Your task to perform on an android device: open app "Move to iOS" Image 0: 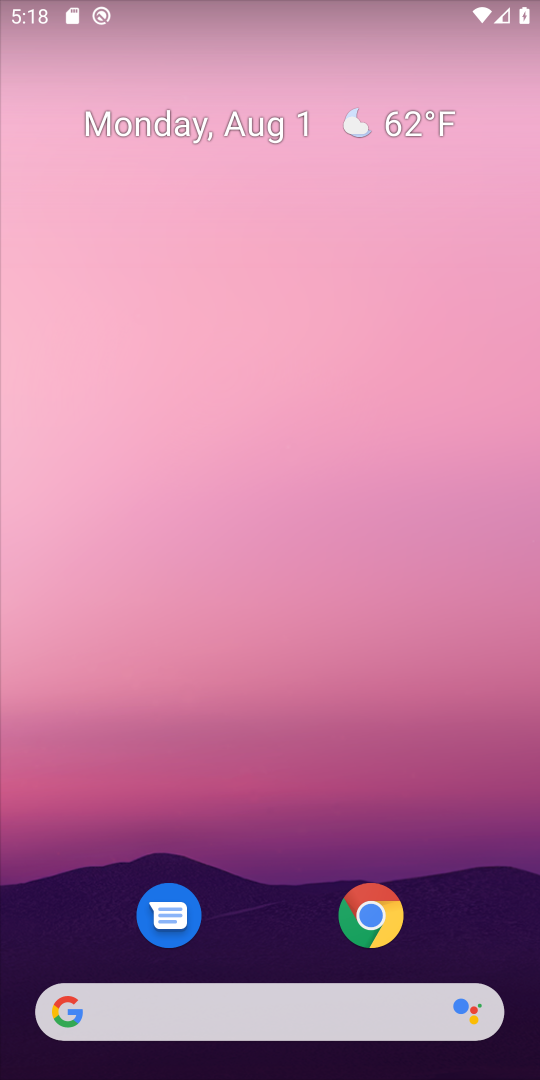
Step 0: drag from (252, 818) to (180, 270)
Your task to perform on an android device: open app "Move to iOS" Image 1: 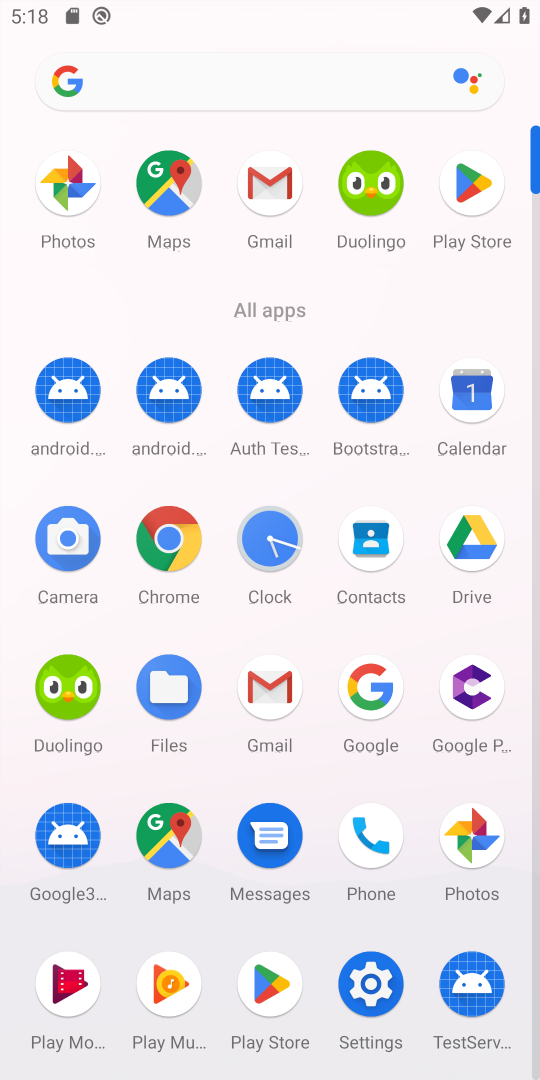
Step 1: click (465, 182)
Your task to perform on an android device: open app "Move to iOS" Image 2: 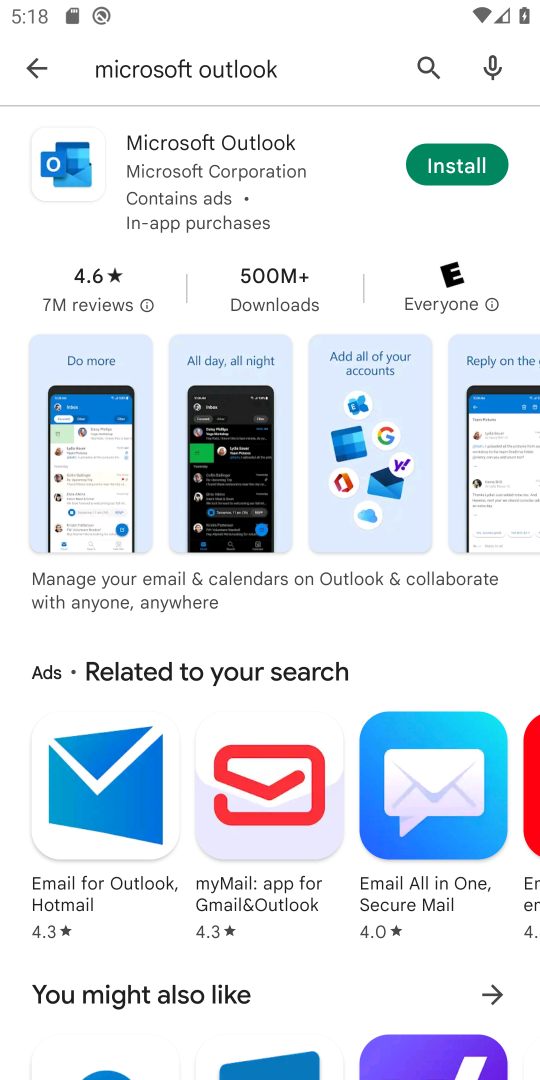
Step 2: click (424, 70)
Your task to perform on an android device: open app "Move to iOS" Image 3: 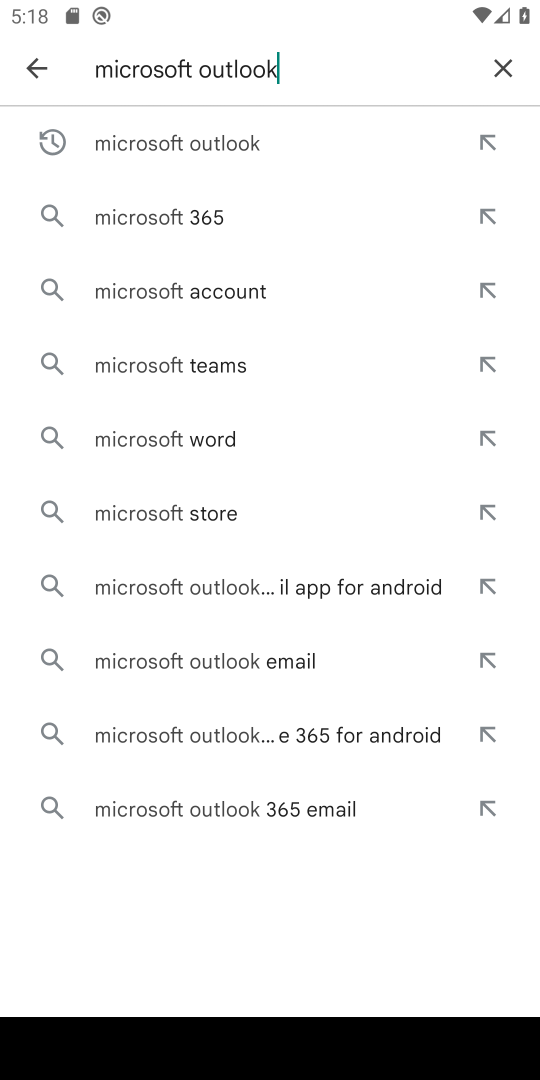
Step 3: click (498, 60)
Your task to perform on an android device: open app "Move to iOS" Image 4: 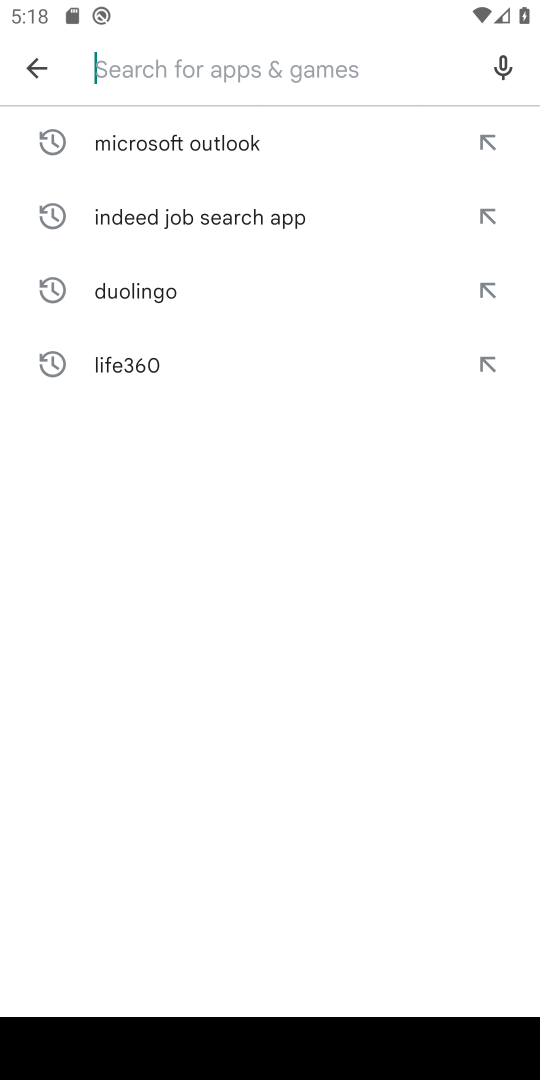
Step 4: click (357, 75)
Your task to perform on an android device: open app "Move to iOS" Image 5: 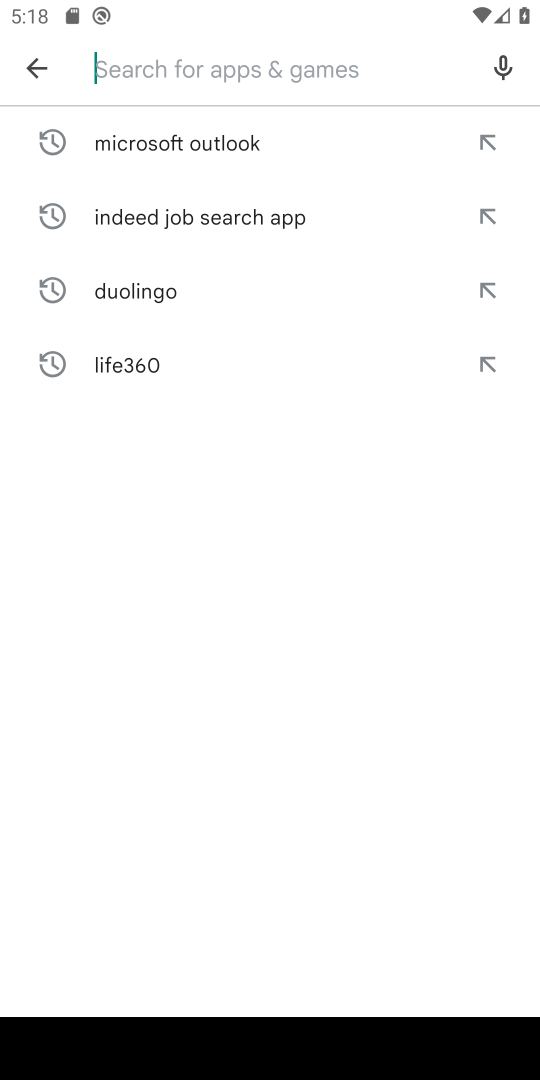
Step 5: type "ios"
Your task to perform on an android device: open app "Move to iOS" Image 6: 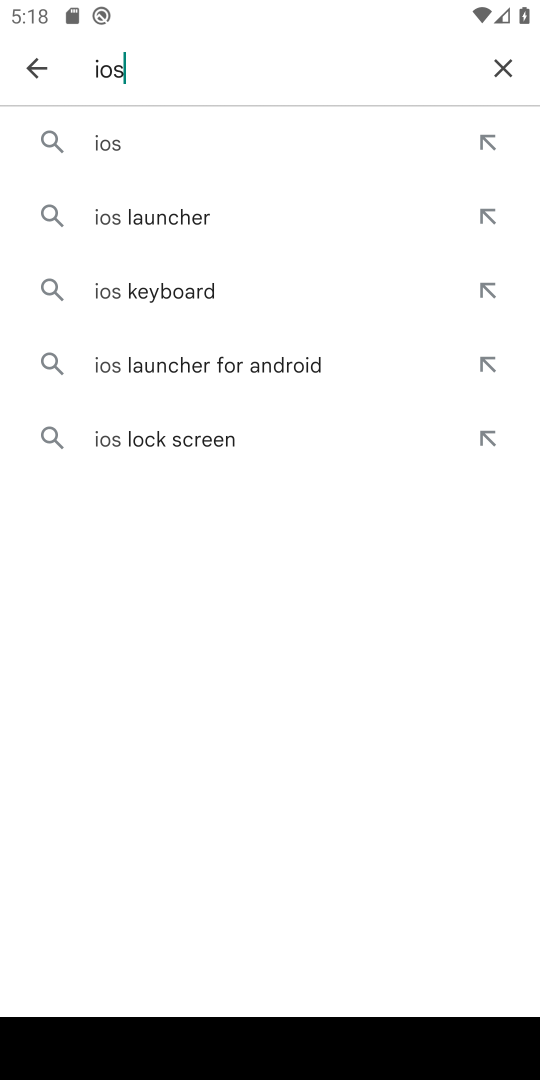
Step 6: click (502, 61)
Your task to perform on an android device: open app "Move to iOS" Image 7: 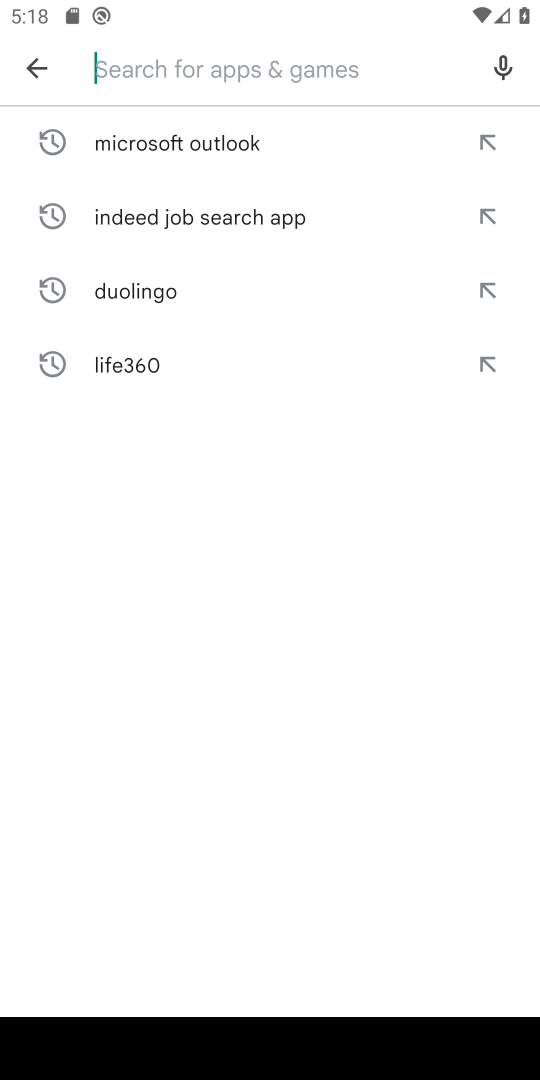
Step 7: type "move to ios"
Your task to perform on an android device: open app "Move to iOS" Image 8: 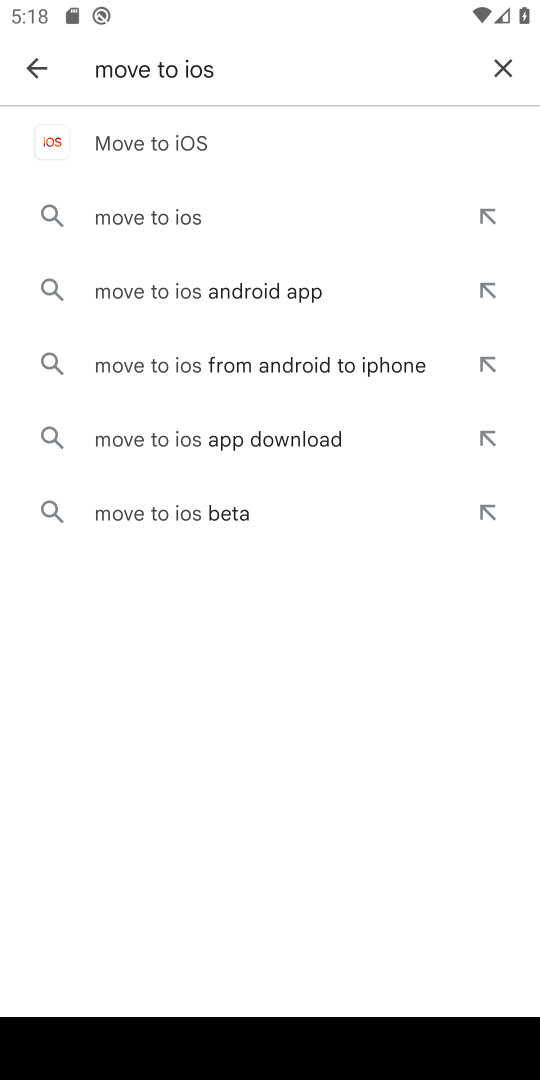
Step 8: click (135, 131)
Your task to perform on an android device: open app "Move to iOS" Image 9: 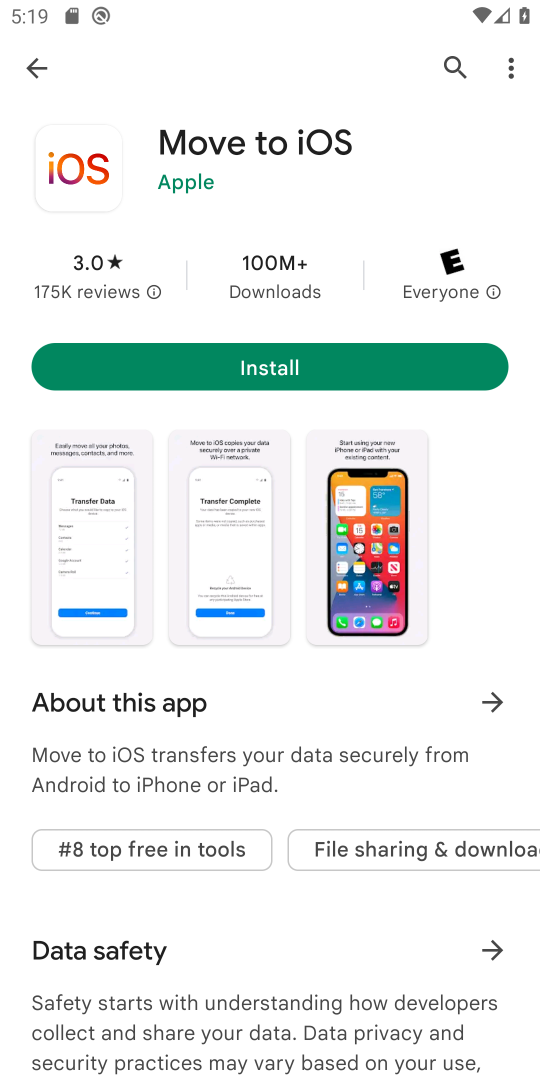
Step 9: task complete